Your task to perform on an android device: Open CNN.com Image 0: 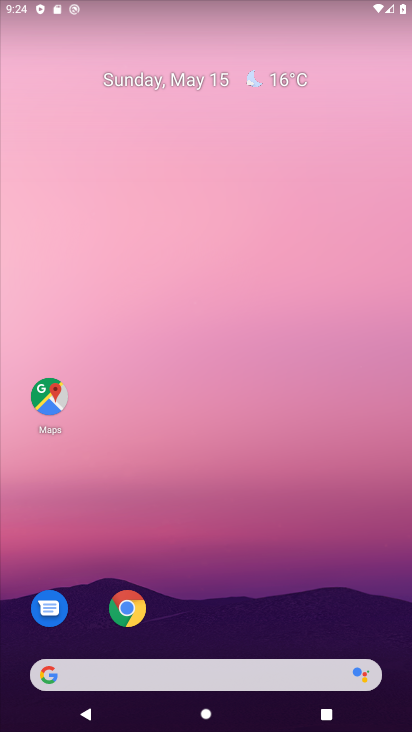
Step 0: drag from (346, 600) to (210, 34)
Your task to perform on an android device: Open CNN.com Image 1: 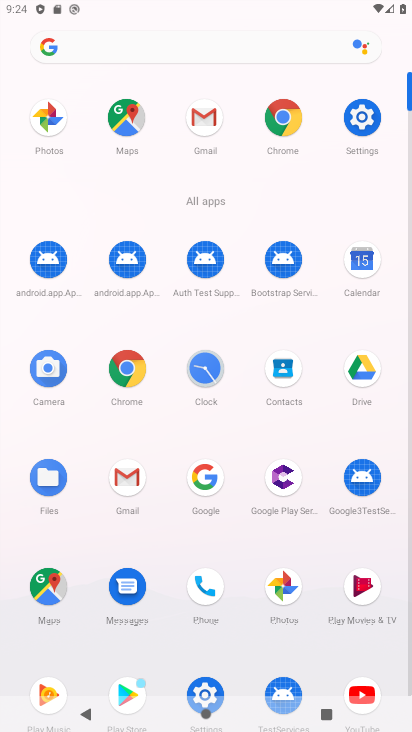
Step 1: click (282, 117)
Your task to perform on an android device: Open CNN.com Image 2: 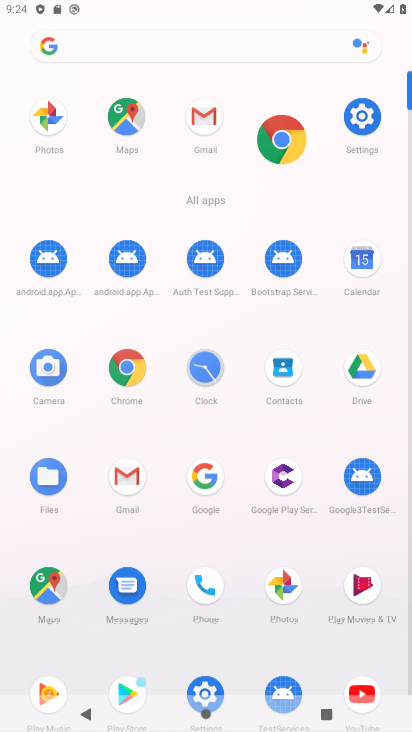
Step 2: click (282, 117)
Your task to perform on an android device: Open CNN.com Image 3: 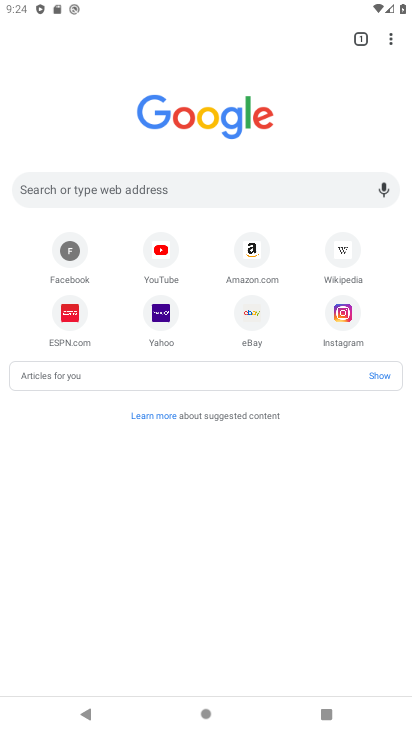
Step 3: click (49, 186)
Your task to perform on an android device: Open CNN.com Image 4: 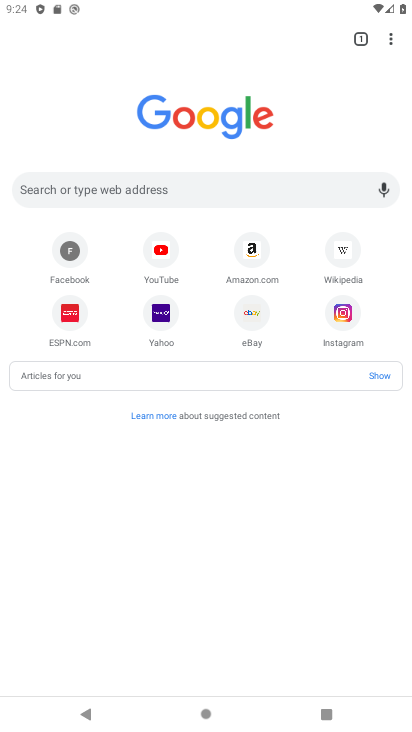
Step 4: type "cnn"
Your task to perform on an android device: Open CNN.com Image 5: 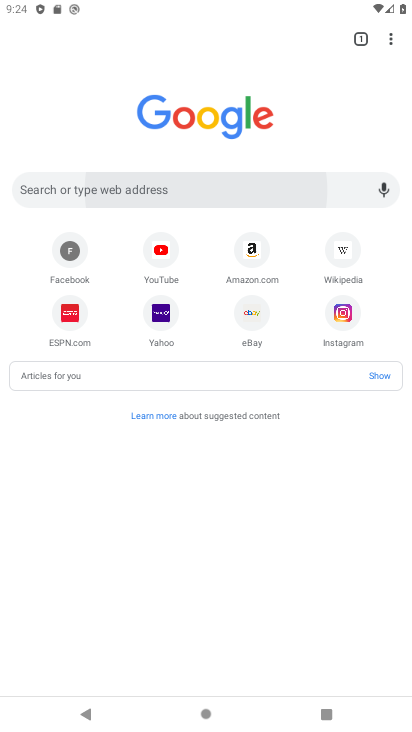
Step 5: click (50, 185)
Your task to perform on an android device: Open CNN.com Image 6: 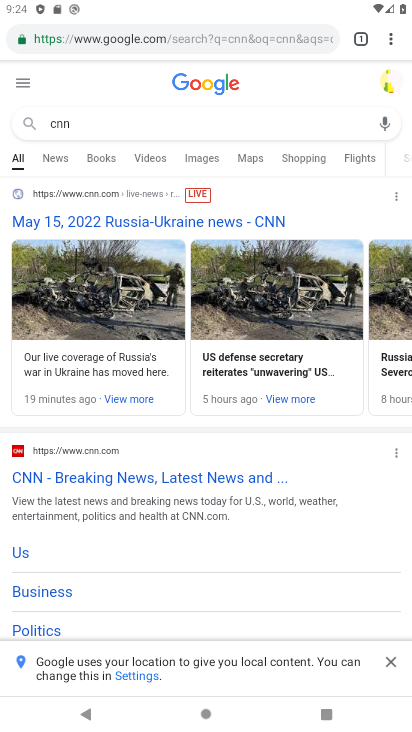
Step 6: click (117, 187)
Your task to perform on an android device: Open CNN.com Image 7: 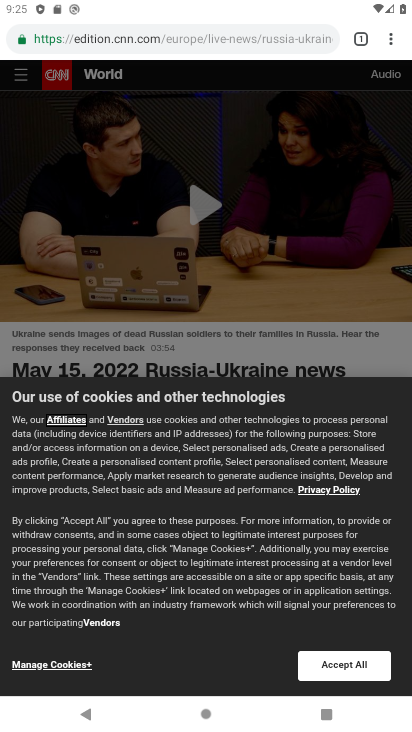
Step 7: task complete